Your task to perform on an android device: Go to calendar. Show me events next week Image 0: 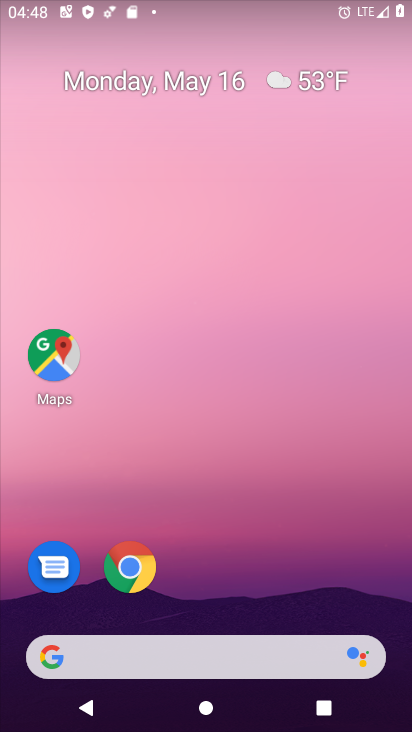
Step 0: drag from (303, 682) to (297, 129)
Your task to perform on an android device: Go to calendar. Show me events next week Image 1: 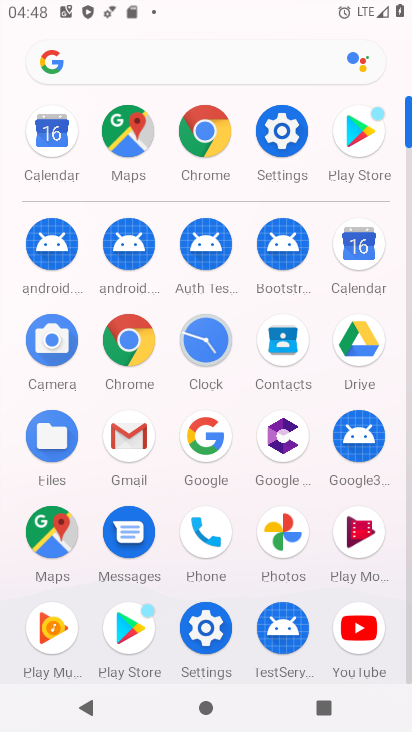
Step 1: click (353, 242)
Your task to perform on an android device: Go to calendar. Show me events next week Image 2: 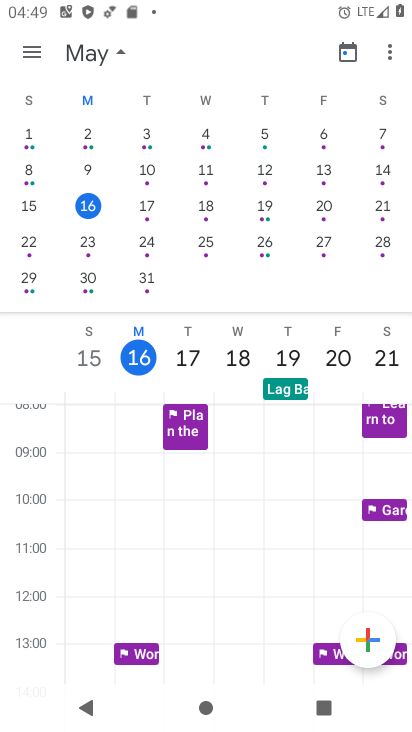
Step 2: click (210, 244)
Your task to perform on an android device: Go to calendar. Show me events next week Image 3: 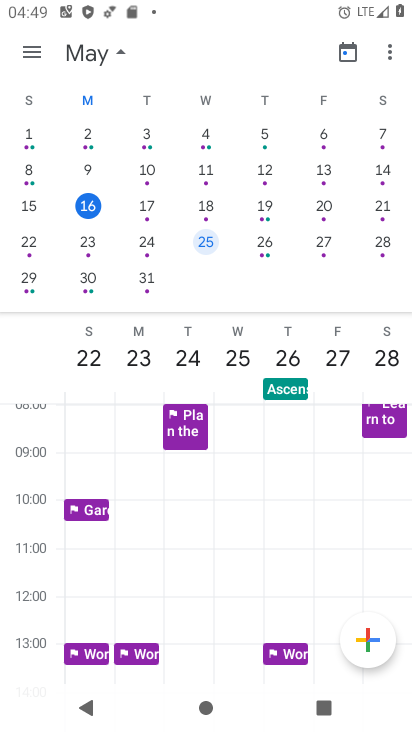
Step 3: task complete